Your task to perform on an android device: Go to eBay Image 0: 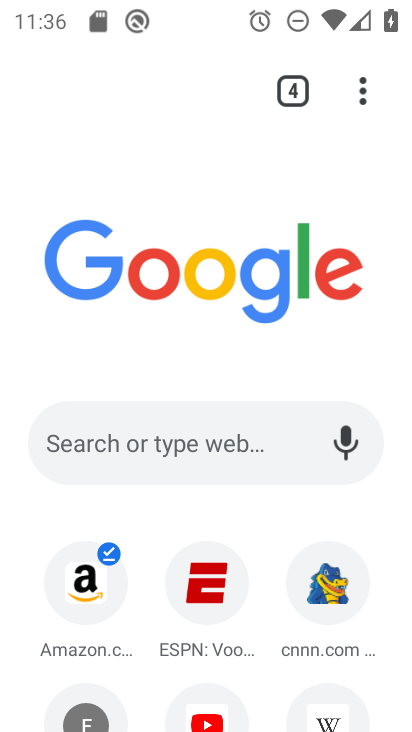
Step 0: press home button
Your task to perform on an android device: Go to eBay Image 1: 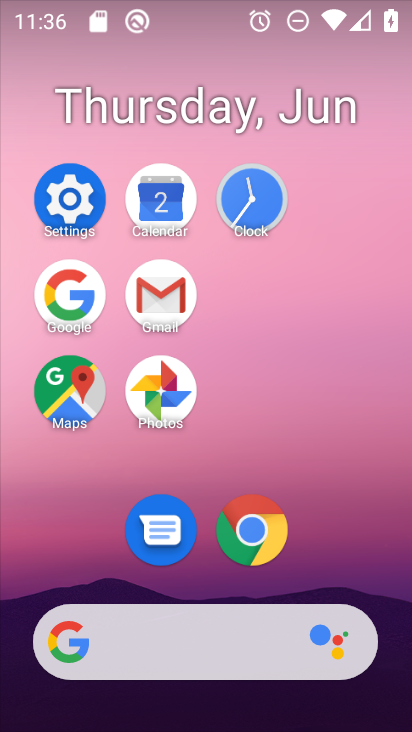
Step 1: click (57, 303)
Your task to perform on an android device: Go to eBay Image 2: 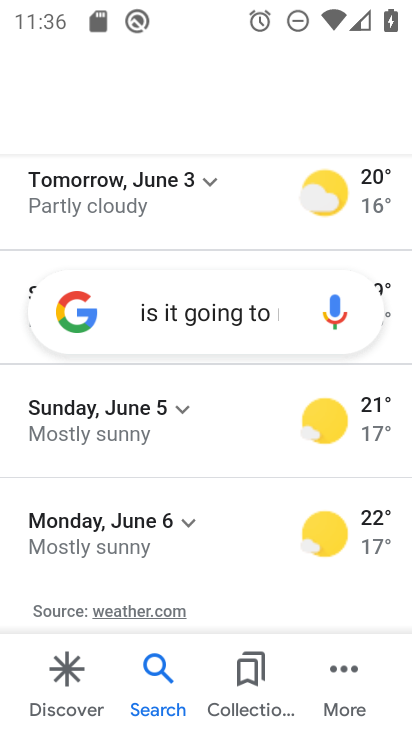
Step 2: click (243, 311)
Your task to perform on an android device: Go to eBay Image 3: 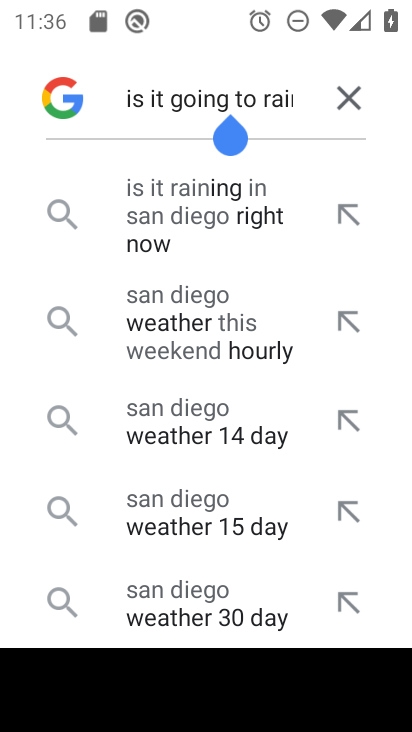
Step 3: click (348, 84)
Your task to perform on an android device: Go to eBay Image 4: 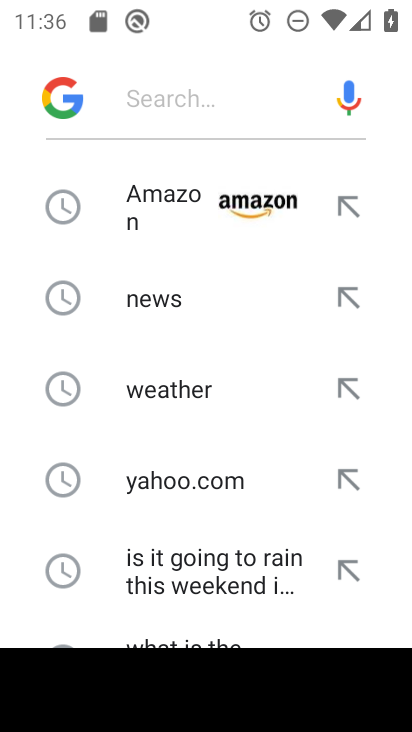
Step 4: drag from (217, 504) to (279, 209)
Your task to perform on an android device: Go to eBay Image 5: 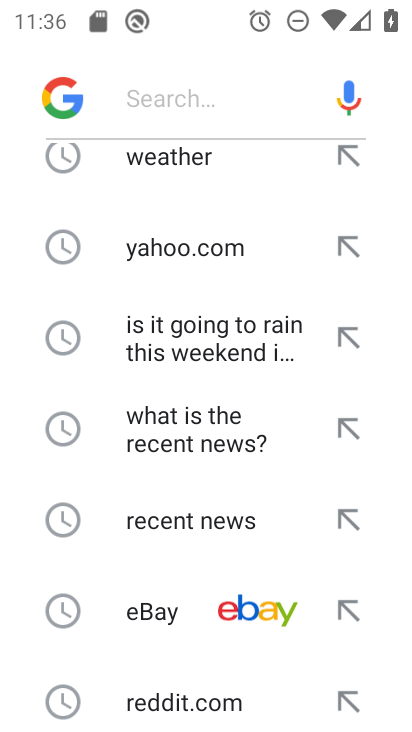
Step 5: click (220, 640)
Your task to perform on an android device: Go to eBay Image 6: 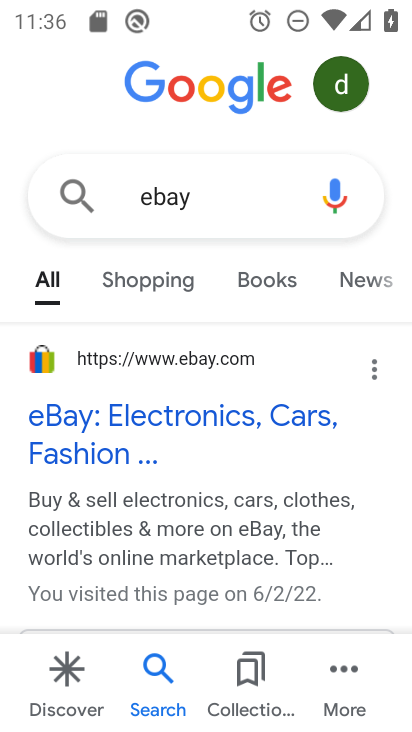
Step 6: click (237, 421)
Your task to perform on an android device: Go to eBay Image 7: 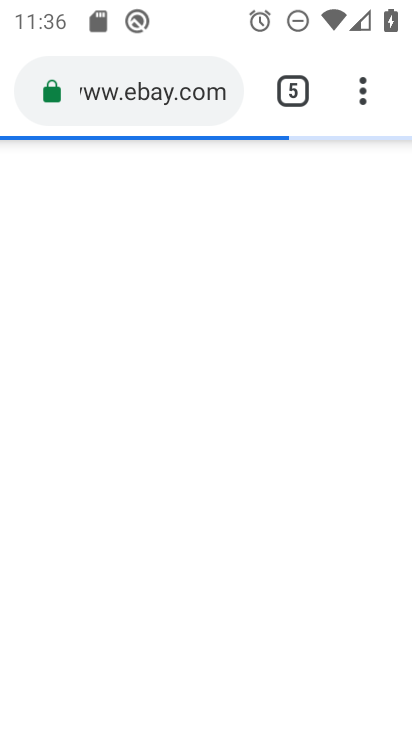
Step 7: task complete